Your task to perform on an android device: allow notifications from all sites in the chrome app Image 0: 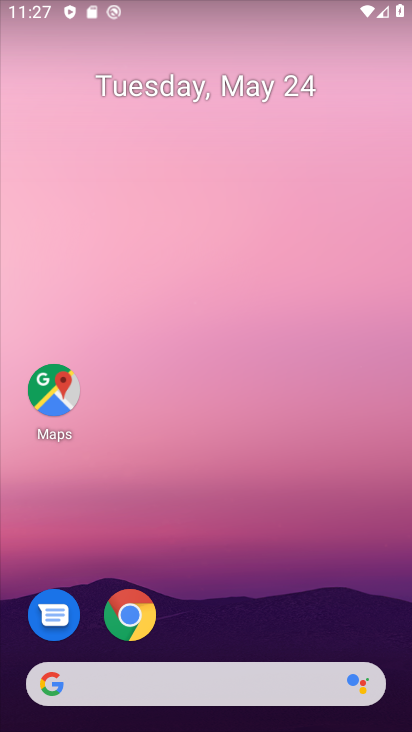
Step 0: click (128, 615)
Your task to perform on an android device: allow notifications from all sites in the chrome app Image 1: 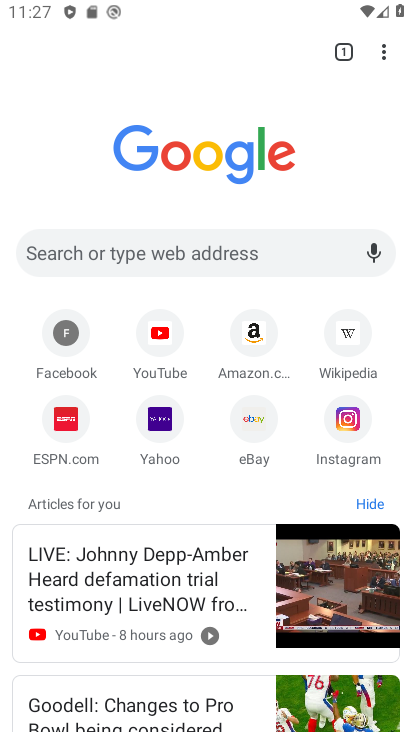
Step 1: click (384, 50)
Your task to perform on an android device: allow notifications from all sites in the chrome app Image 2: 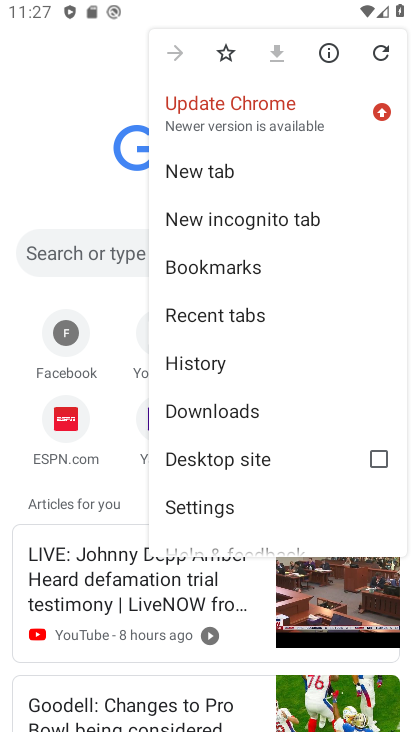
Step 2: click (214, 503)
Your task to perform on an android device: allow notifications from all sites in the chrome app Image 3: 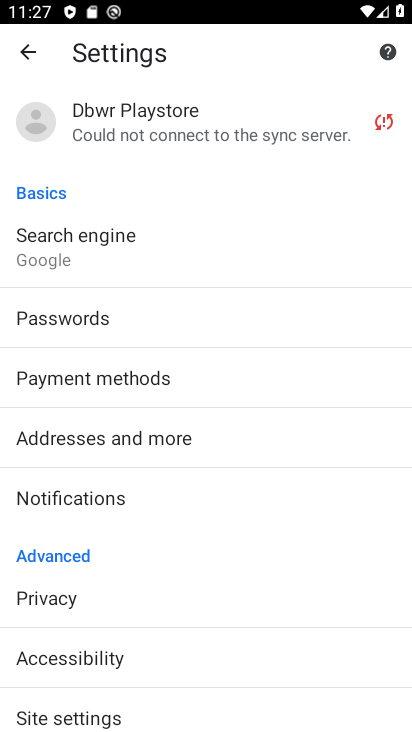
Step 3: drag from (107, 556) to (130, 469)
Your task to perform on an android device: allow notifications from all sites in the chrome app Image 4: 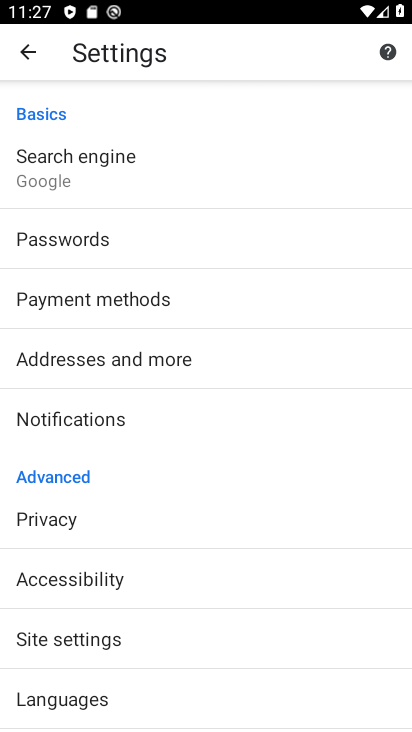
Step 4: click (100, 634)
Your task to perform on an android device: allow notifications from all sites in the chrome app Image 5: 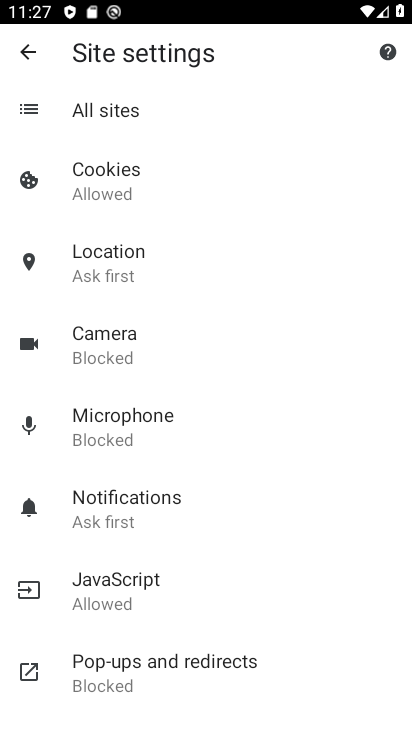
Step 5: click (139, 501)
Your task to perform on an android device: allow notifications from all sites in the chrome app Image 6: 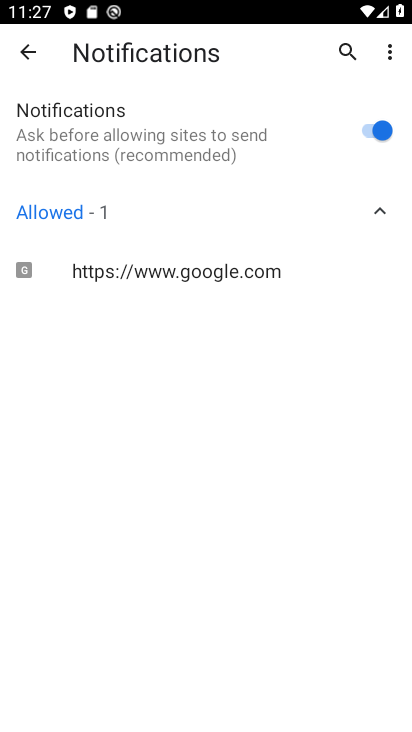
Step 6: task complete